Your task to perform on an android device: Open privacy settings Image 0: 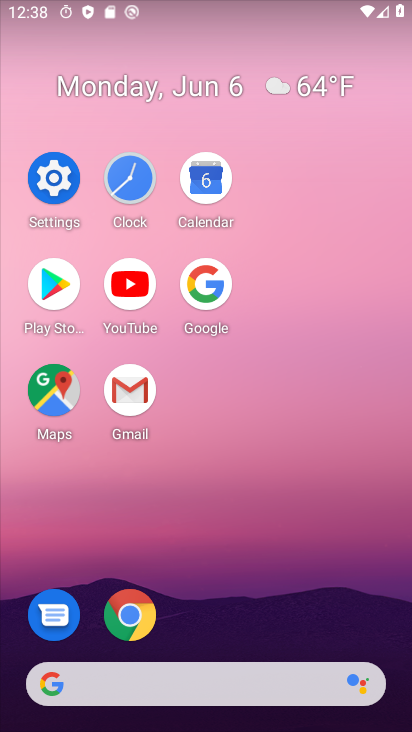
Step 0: click (43, 180)
Your task to perform on an android device: Open privacy settings Image 1: 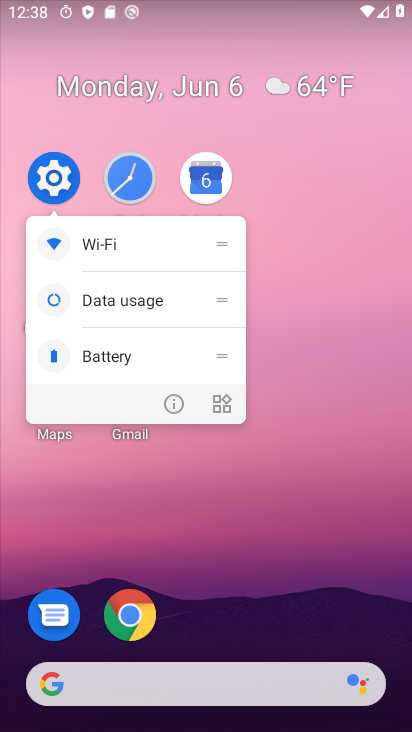
Step 1: click (43, 180)
Your task to perform on an android device: Open privacy settings Image 2: 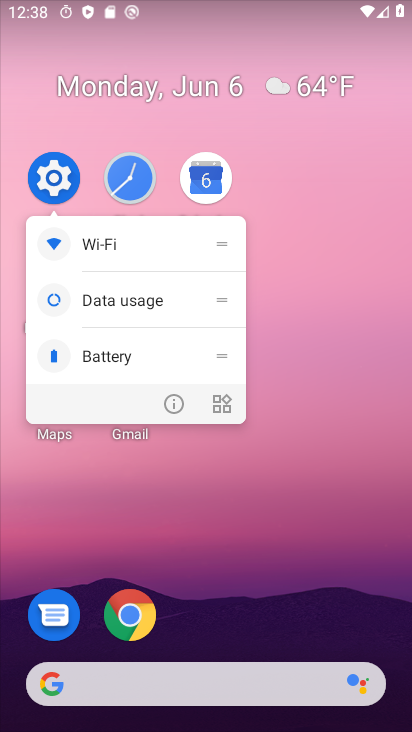
Step 2: click (43, 180)
Your task to perform on an android device: Open privacy settings Image 3: 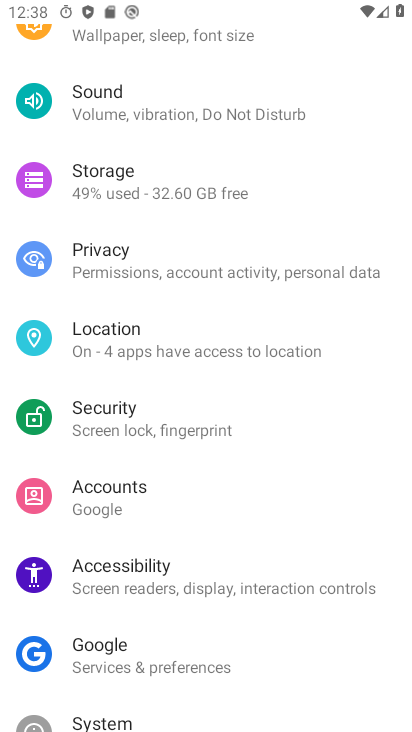
Step 3: click (199, 267)
Your task to perform on an android device: Open privacy settings Image 4: 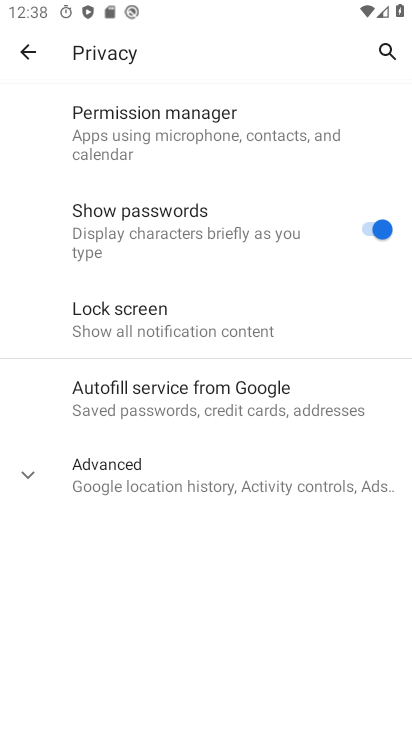
Step 4: task complete